Your task to perform on an android device: Check the news Image 0: 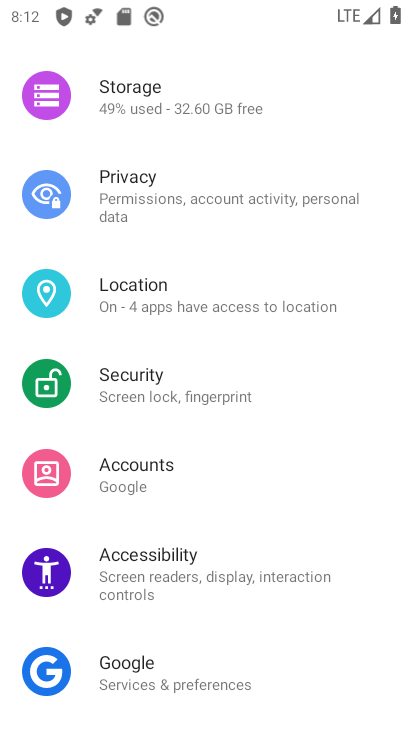
Step 0: press home button
Your task to perform on an android device: Check the news Image 1: 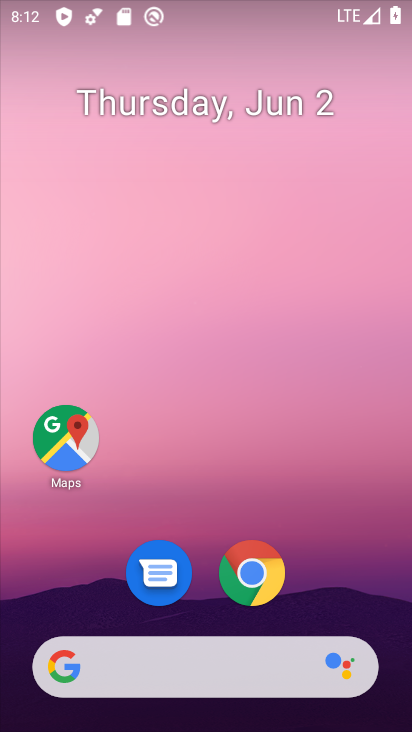
Step 1: drag from (325, 551) to (265, 91)
Your task to perform on an android device: Check the news Image 2: 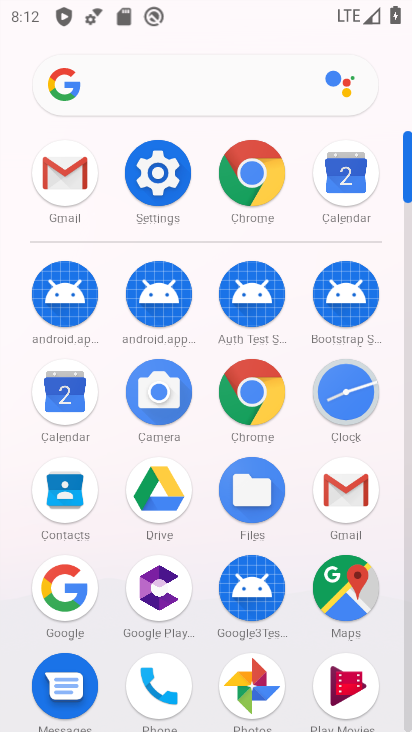
Step 2: click (256, 167)
Your task to perform on an android device: Check the news Image 3: 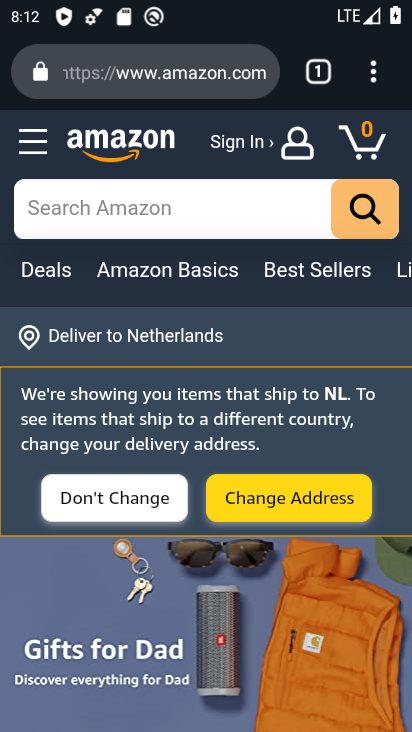
Step 3: task complete